Your task to perform on an android device: Go to location settings Image 0: 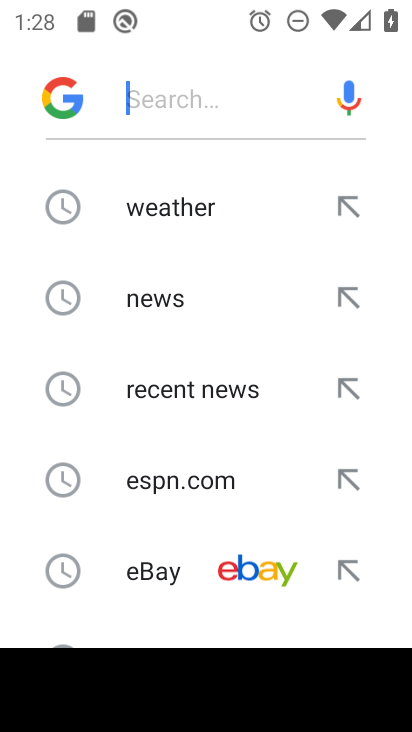
Step 0: task complete